Your task to perform on an android device: Go to notification settings Image 0: 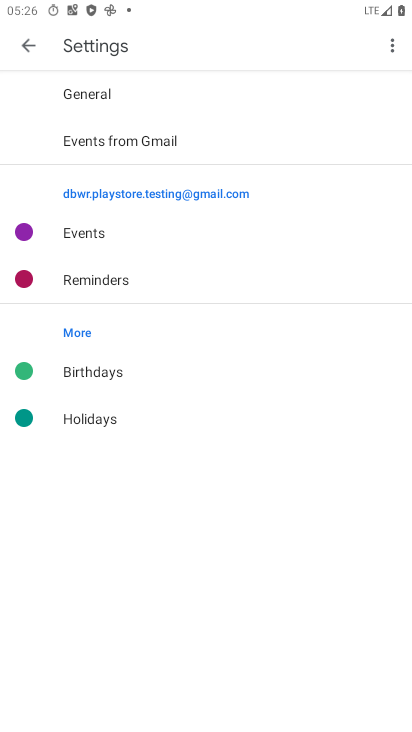
Step 0: press home button
Your task to perform on an android device: Go to notification settings Image 1: 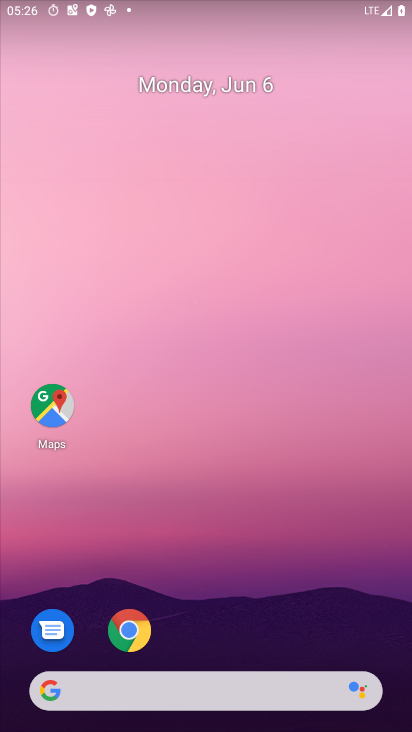
Step 1: drag from (255, 647) to (405, 5)
Your task to perform on an android device: Go to notification settings Image 2: 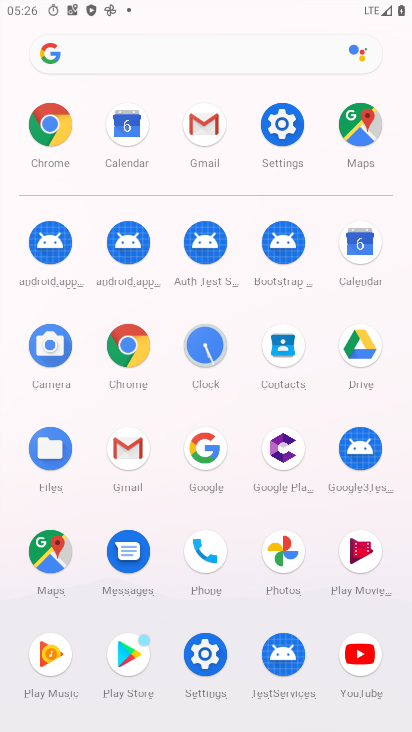
Step 2: click (205, 649)
Your task to perform on an android device: Go to notification settings Image 3: 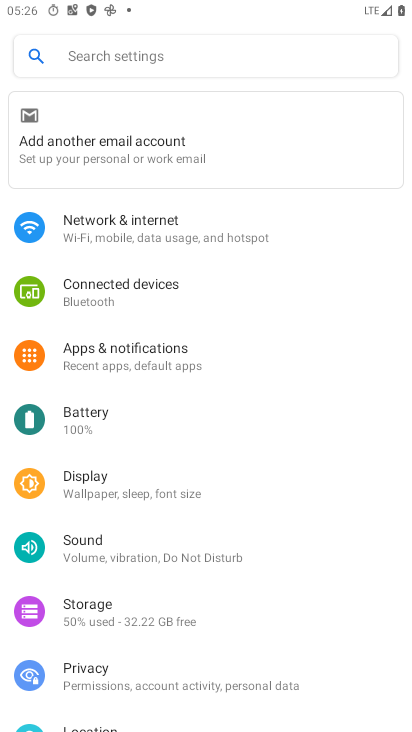
Step 3: click (110, 351)
Your task to perform on an android device: Go to notification settings Image 4: 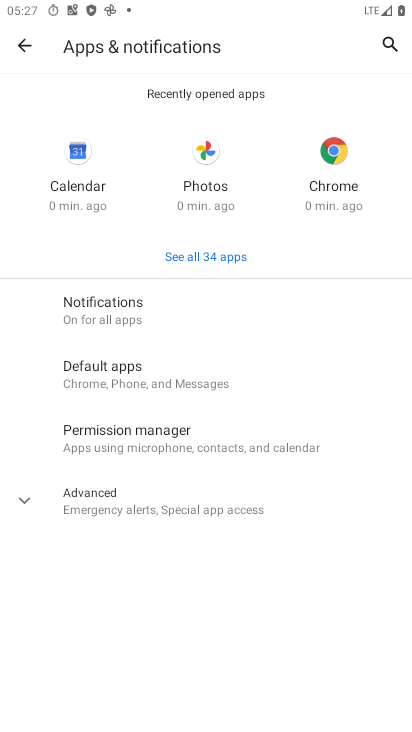
Step 4: click (117, 303)
Your task to perform on an android device: Go to notification settings Image 5: 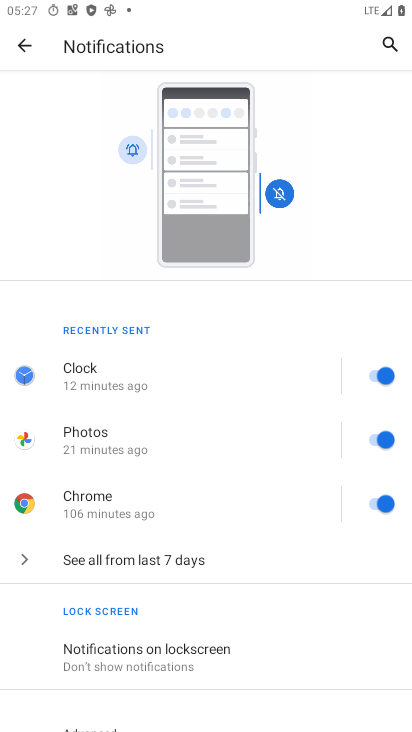
Step 5: task complete